Your task to perform on an android device: Empty the shopping cart on costco. Image 0: 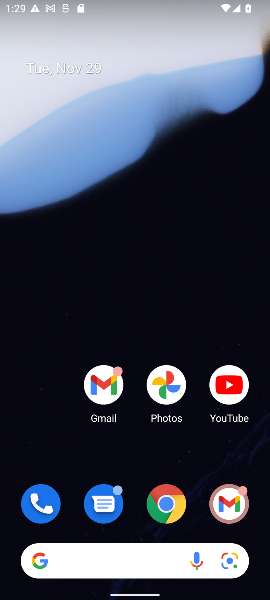
Step 0: click (170, 509)
Your task to perform on an android device: Empty the shopping cart on costco. Image 1: 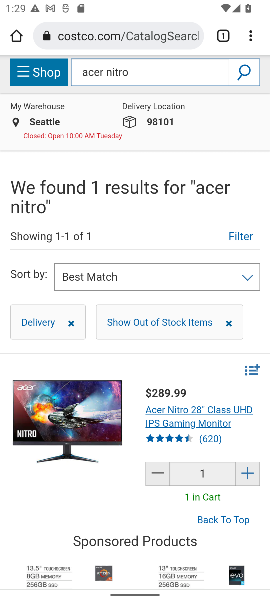
Step 1: drag from (206, 202) to (201, 233)
Your task to perform on an android device: Empty the shopping cart on costco. Image 2: 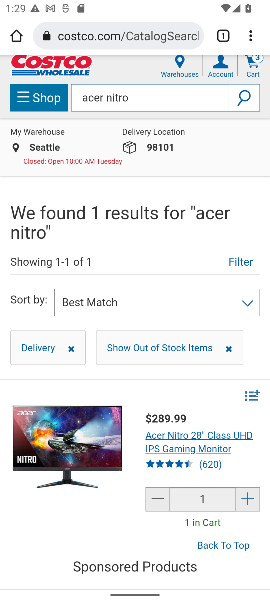
Step 2: drag from (217, 140) to (221, 221)
Your task to perform on an android device: Empty the shopping cart on costco. Image 3: 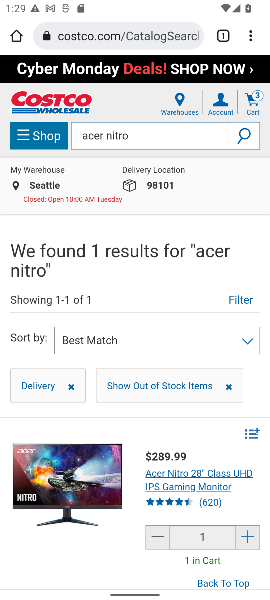
Step 3: click (255, 105)
Your task to perform on an android device: Empty the shopping cart on costco. Image 4: 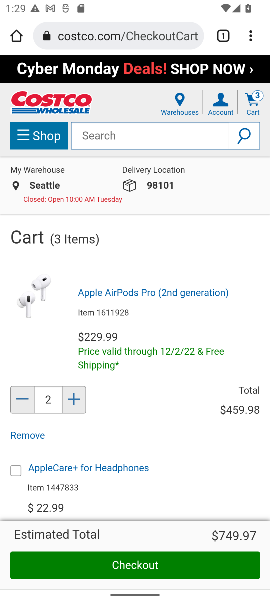
Step 4: drag from (103, 400) to (118, 214)
Your task to perform on an android device: Empty the shopping cart on costco. Image 5: 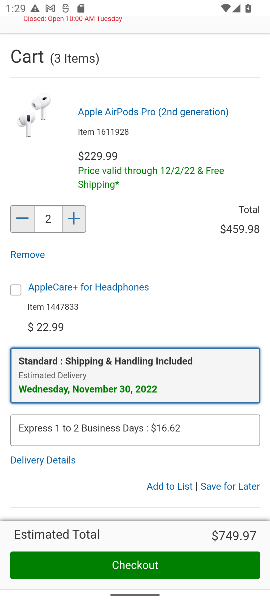
Step 5: click (217, 485)
Your task to perform on an android device: Empty the shopping cart on costco. Image 6: 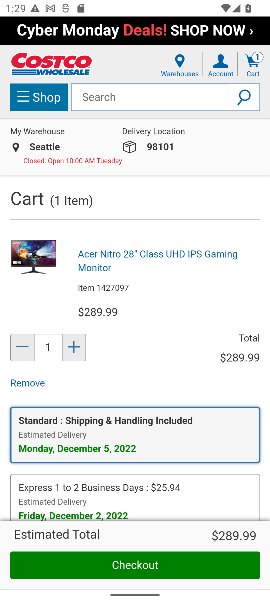
Step 6: drag from (187, 453) to (185, 287)
Your task to perform on an android device: Empty the shopping cart on costco. Image 7: 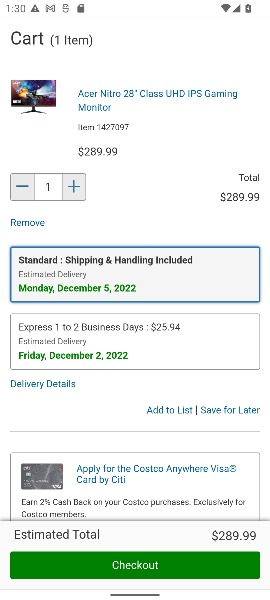
Step 7: click (230, 410)
Your task to perform on an android device: Empty the shopping cart on costco. Image 8: 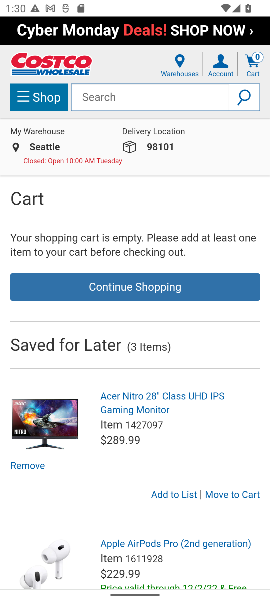
Step 8: task complete